Your task to perform on an android device: Go to calendar. Show me events next week Image 0: 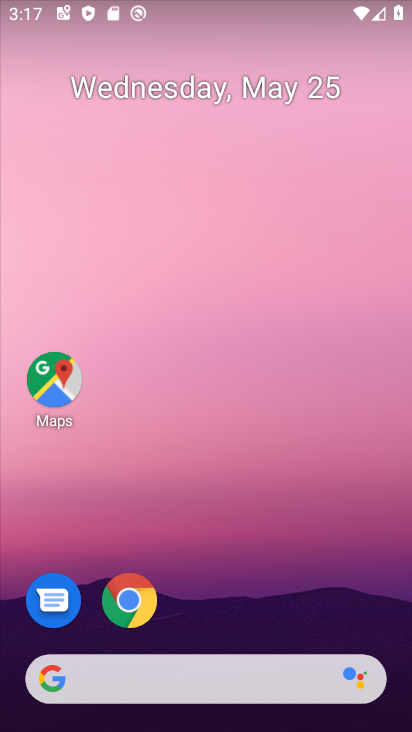
Step 0: drag from (0, 647) to (338, 48)
Your task to perform on an android device: Go to calendar. Show me events next week Image 1: 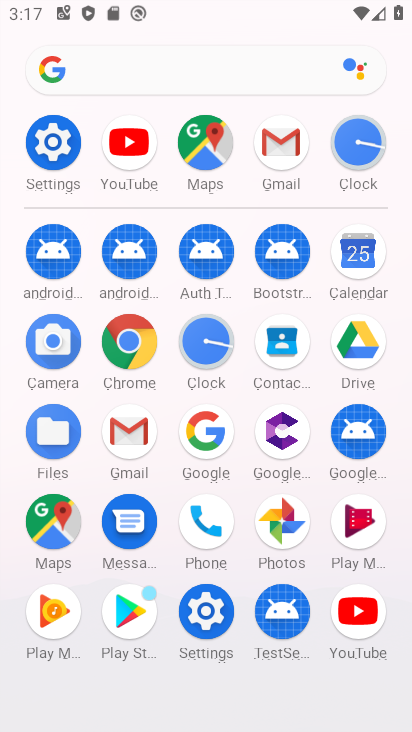
Step 1: click (351, 252)
Your task to perform on an android device: Go to calendar. Show me events next week Image 2: 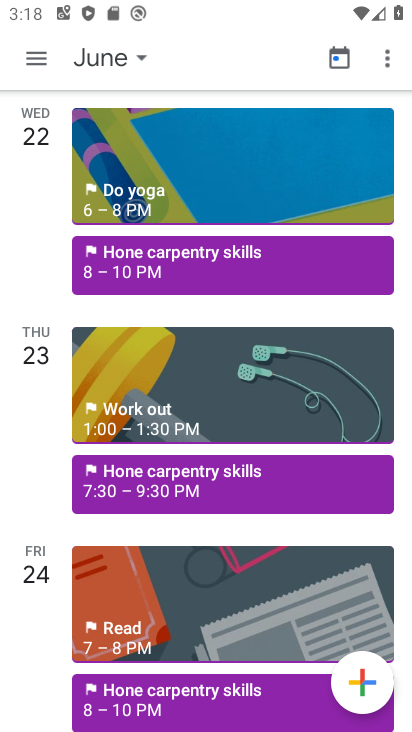
Step 2: click (122, 67)
Your task to perform on an android device: Go to calendar. Show me events next week Image 3: 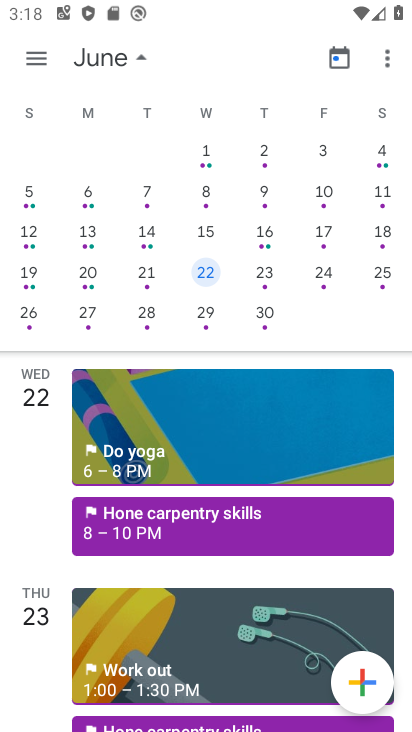
Step 3: drag from (11, 294) to (395, 175)
Your task to perform on an android device: Go to calendar. Show me events next week Image 4: 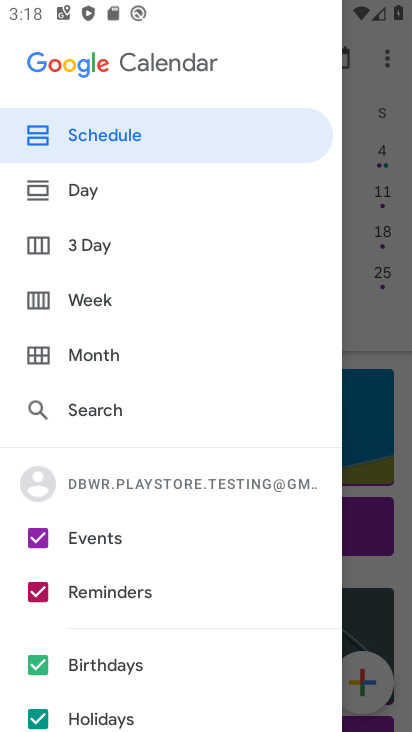
Step 4: press back button
Your task to perform on an android device: Go to calendar. Show me events next week Image 5: 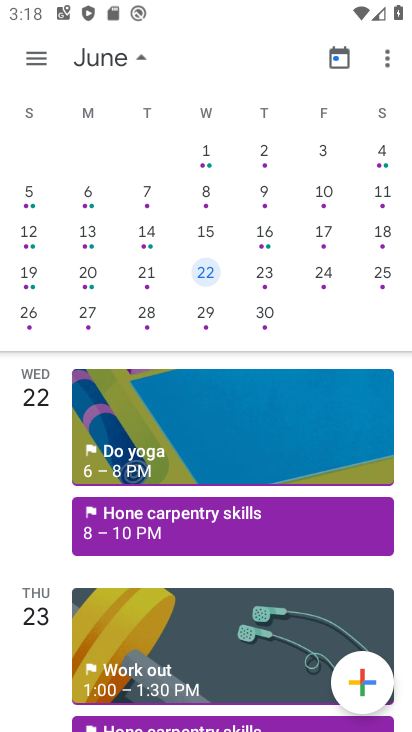
Step 5: drag from (14, 241) to (383, 233)
Your task to perform on an android device: Go to calendar. Show me events next week Image 6: 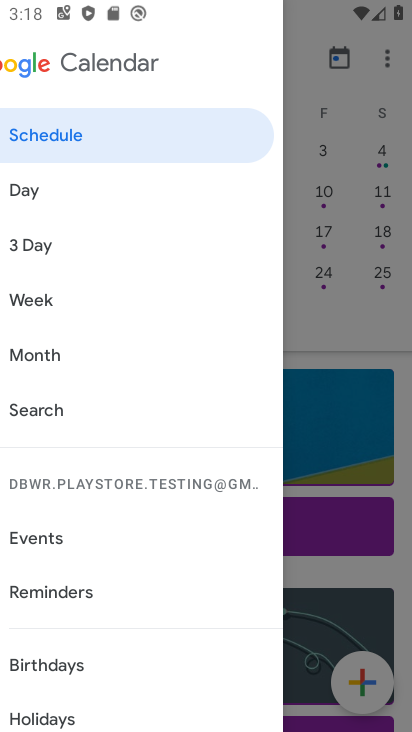
Step 6: press back button
Your task to perform on an android device: Go to calendar. Show me events next week Image 7: 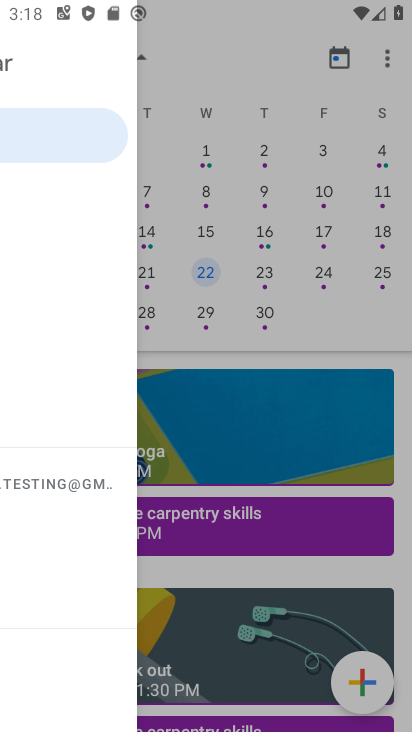
Step 7: click (383, 233)
Your task to perform on an android device: Go to calendar. Show me events next week Image 8: 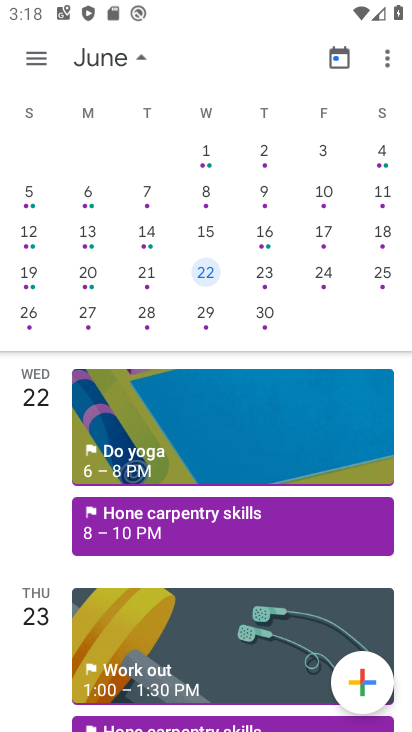
Step 8: drag from (12, 203) to (411, 219)
Your task to perform on an android device: Go to calendar. Show me events next week Image 9: 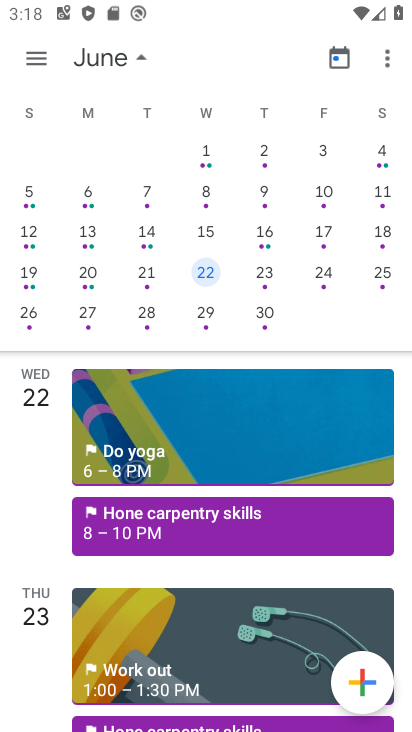
Step 9: drag from (42, 227) to (409, 79)
Your task to perform on an android device: Go to calendar. Show me events next week Image 10: 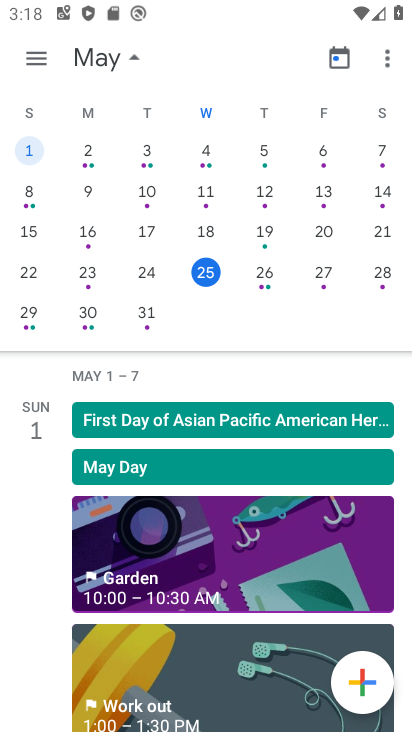
Step 10: click (53, 238)
Your task to perform on an android device: Go to calendar. Show me events next week Image 11: 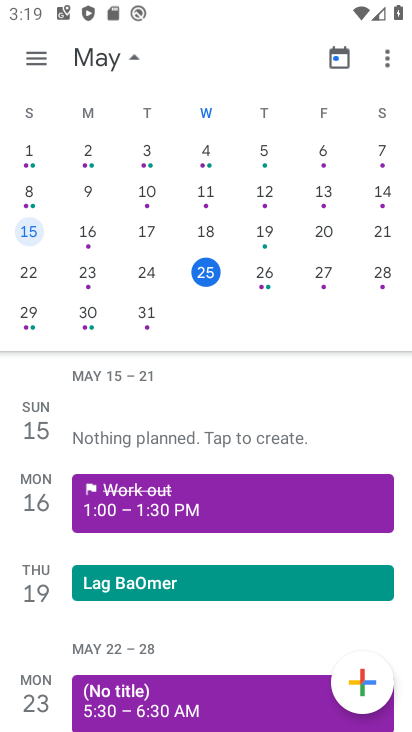
Step 11: click (84, 319)
Your task to perform on an android device: Go to calendar. Show me events next week Image 12: 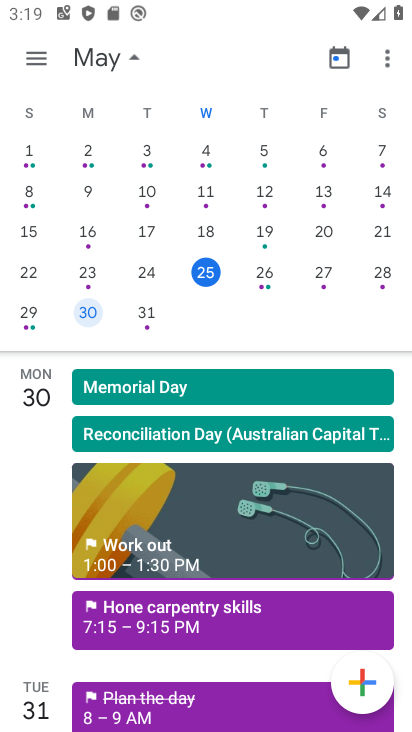
Step 12: click (150, 322)
Your task to perform on an android device: Go to calendar. Show me events next week Image 13: 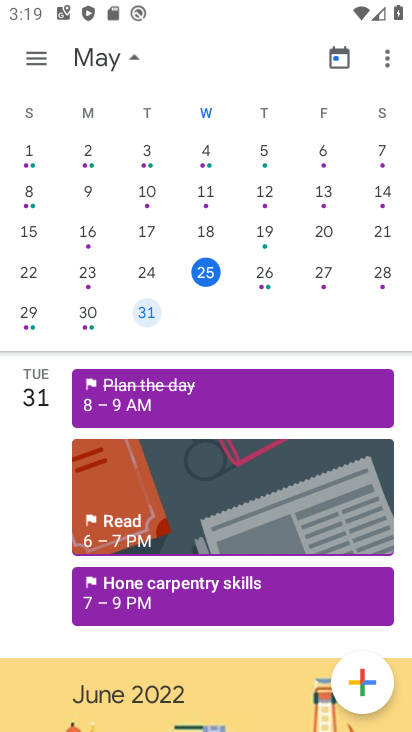
Step 13: task complete